Your task to perform on an android device: empty trash in google photos Image 0: 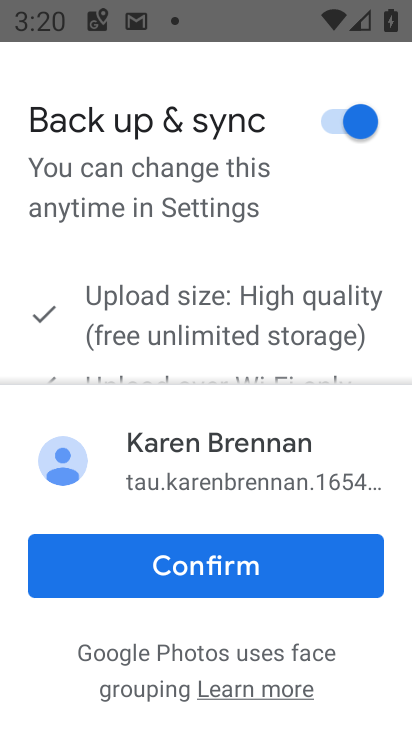
Step 0: press home button
Your task to perform on an android device: empty trash in google photos Image 1: 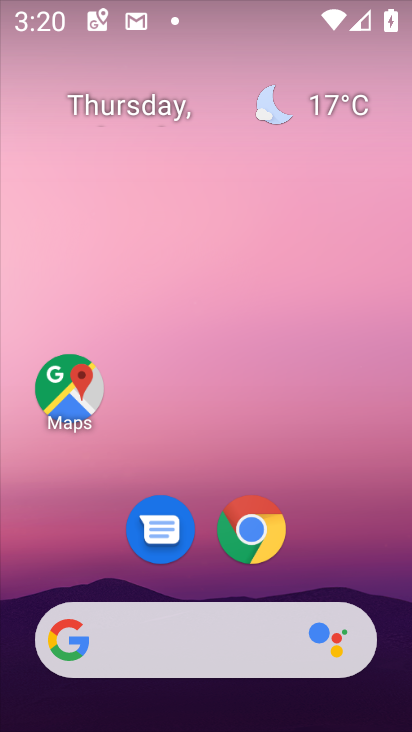
Step 1: drag from (169, 568) to (109, 116)
Your task to perform on an android device: empty trash in google photos Image 2: 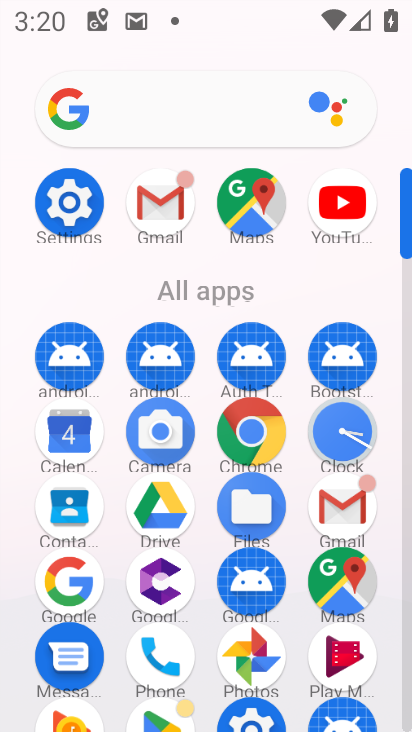
Step 2: click (242, 657)
Your task to perform on an android device: empty trash in google photos Image 3: 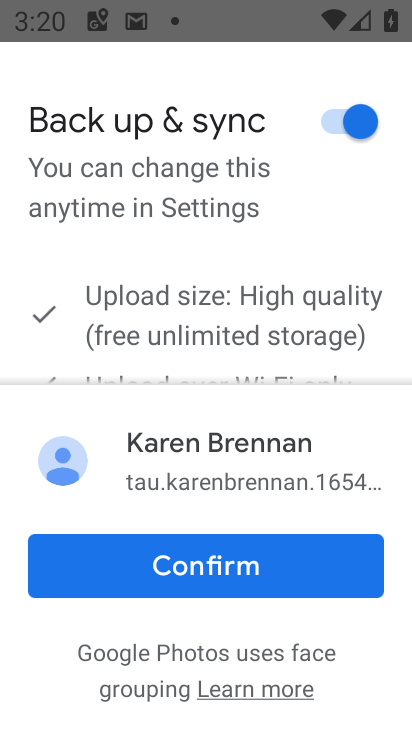
Step 3: click (182, 578)
Your task to perform on an android device: empty trash in google photos Image 4: 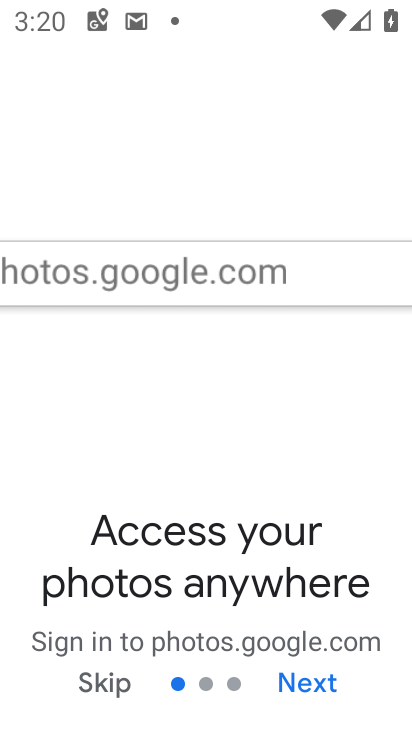
Step 4: click (311, 679)
Your task to perform on an android device: empty trash in google photos Image 5: 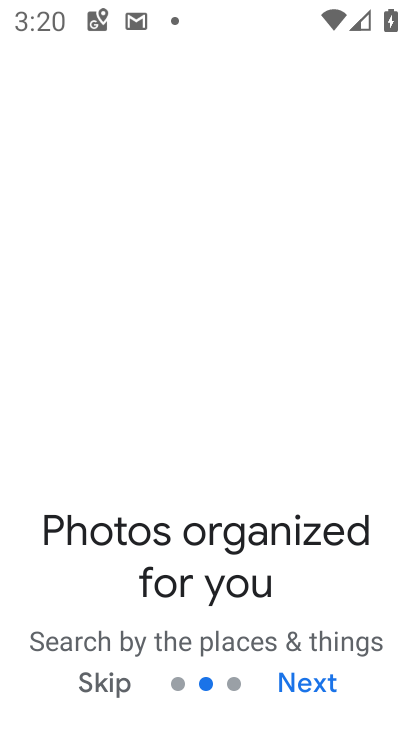
Step 5: click (311, 679)
Your task to perform on an android device: empty trash in google photos Image 6: 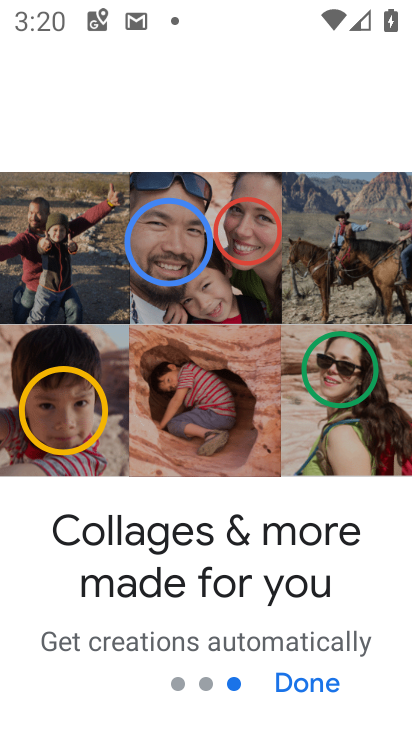
Step 6: click (311, 679)
Your task to perform on an android device: empty trash in google photos Image 7: 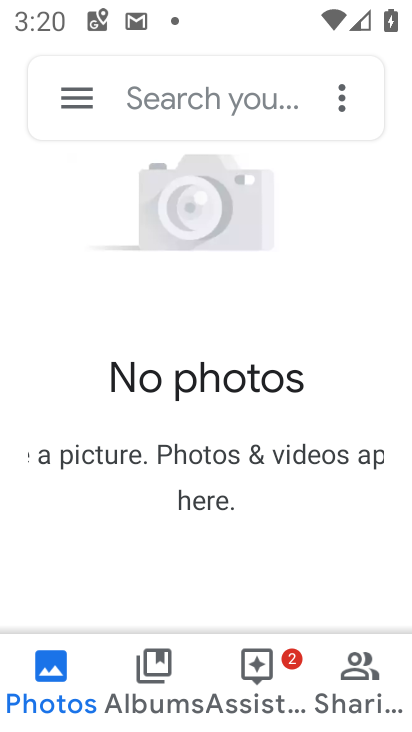
Step 7: click (69, 102)
Your task to perform on an android device: empty trash in google photos Image 8: 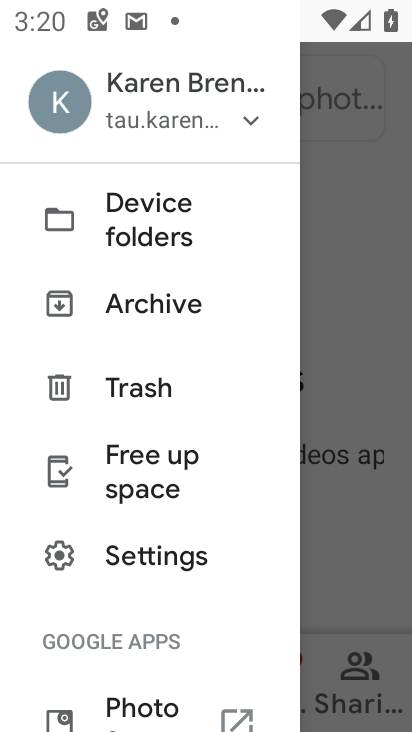
Step 8: click (137, 388)
Your task to perform on an android device: empty trash in google photos Image 9: 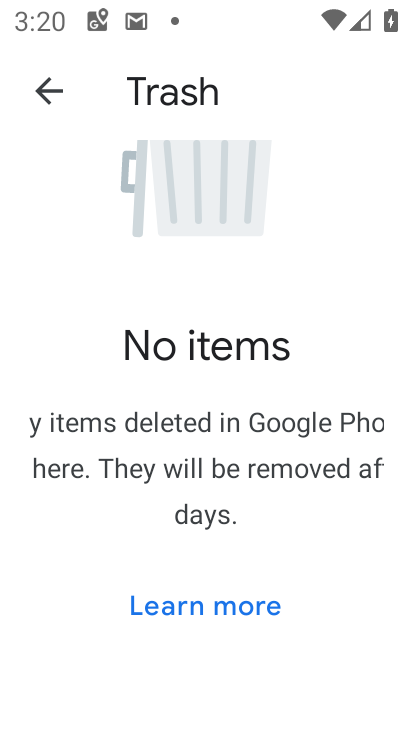
Step 9: task complete